Your task to perform on an android device: turn pop-ups off in chrome Image 0: 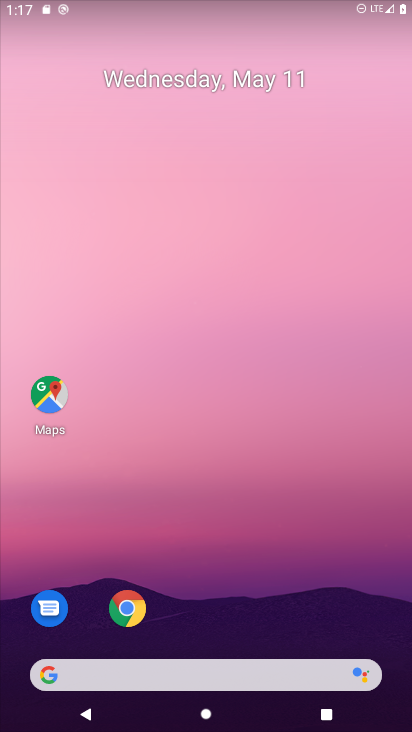
Step 0: drag from (189, 541) to (204, 55)
Your task to perform on an android device: turn pop-ups off in chrome Image 1: 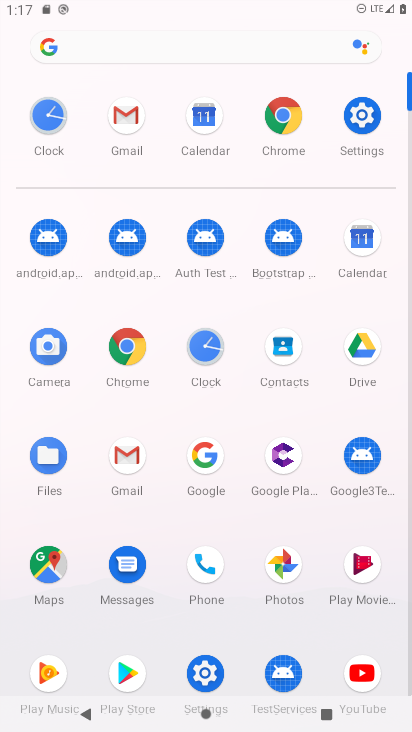
Step 1: click (283, 107)
Your task to perform on an android device: turn pop-ups off in chrome Image 2: 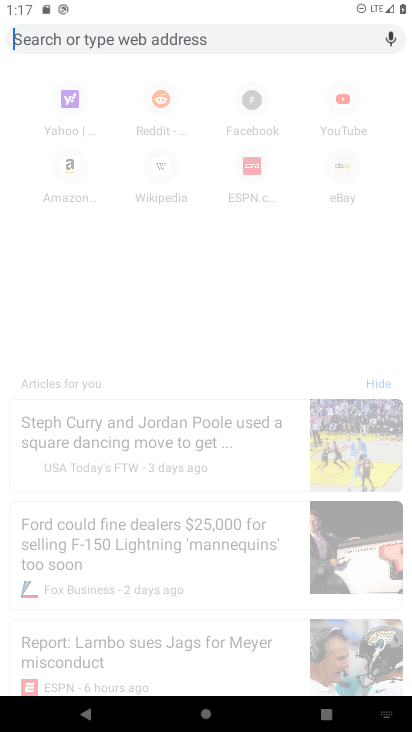
Step 2: press back button
Your task to perform on an android device: turn pop-ups off in chrome Image 3: 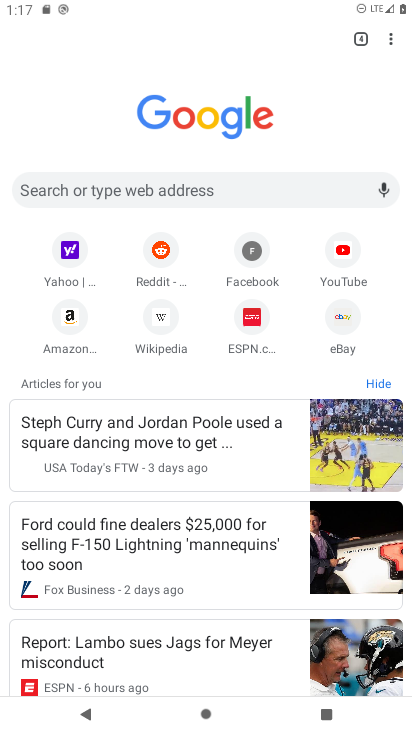
Step 3: click (383, 39)
Your task to perform on an android device: turn pop-ups off in chrome Image 4: 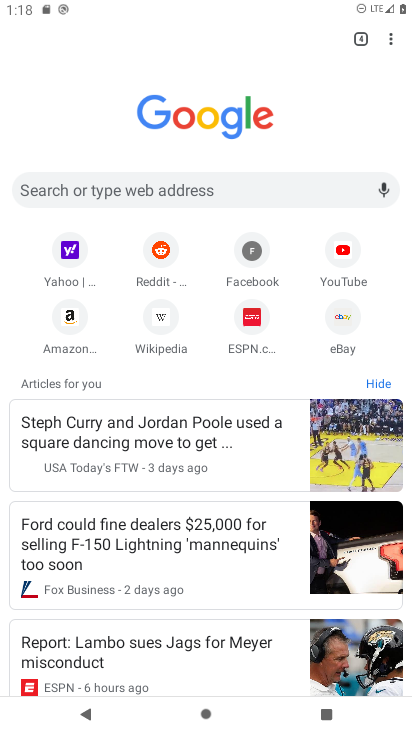
Step 4: click (383, 39)
Your task to perform on an android device: turn pop-ups off in chrome Image 5: 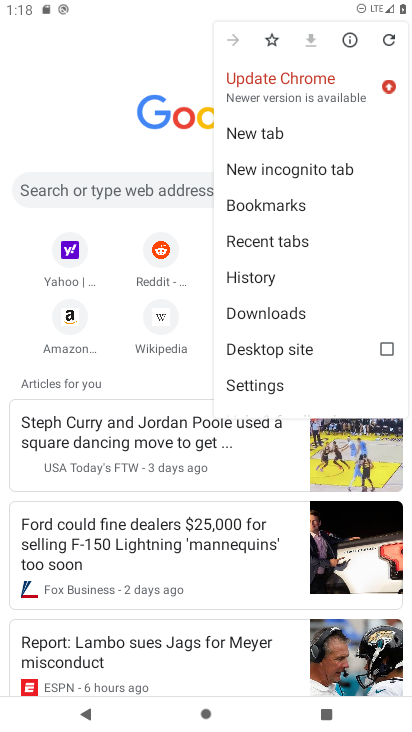
Step 5: click (300, 385)
Your task to perform on an android device: turn pop-ups off in chrome Image 6: 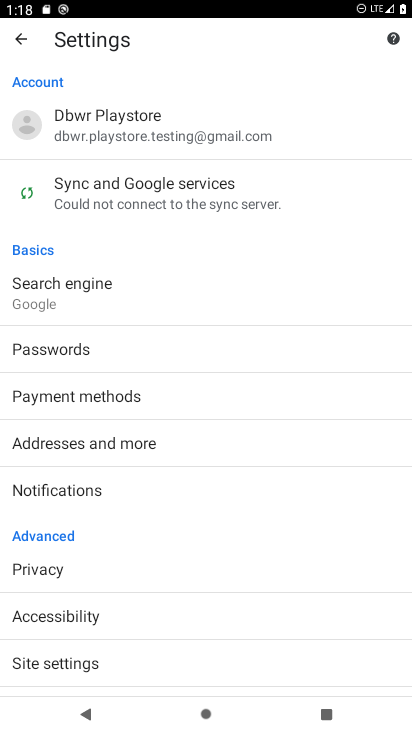
Step 6: click (156, 660)
Your task to perform on an android device: turn pop-ups off in chrome Image 7: 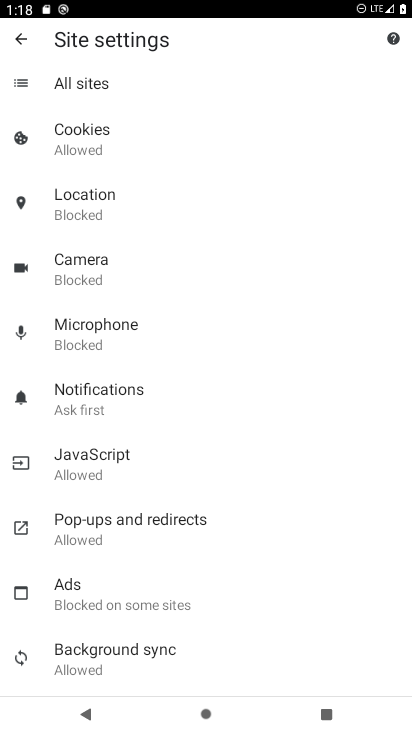
Step 7: click (231, 524)
Your task to perform on an android device: turn pop-ups off in chrome Image 8: 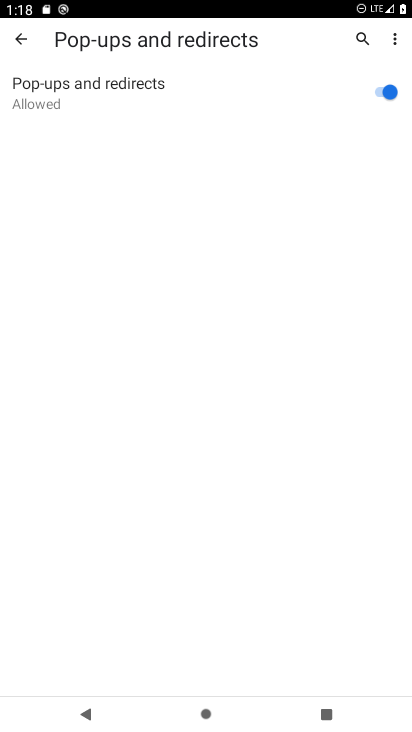
Step 8: click (380, 86)
Your task to perform on an android device: turn pop-ups off in chrome Image 9: 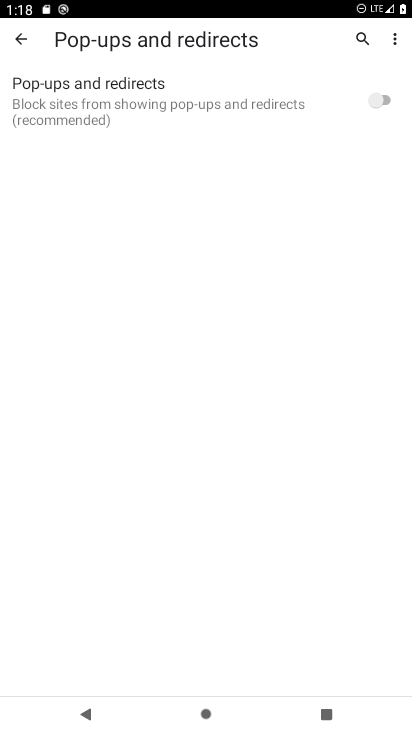
Step 9: task complete